Your task to perform on an android device: delete location history Image 0: 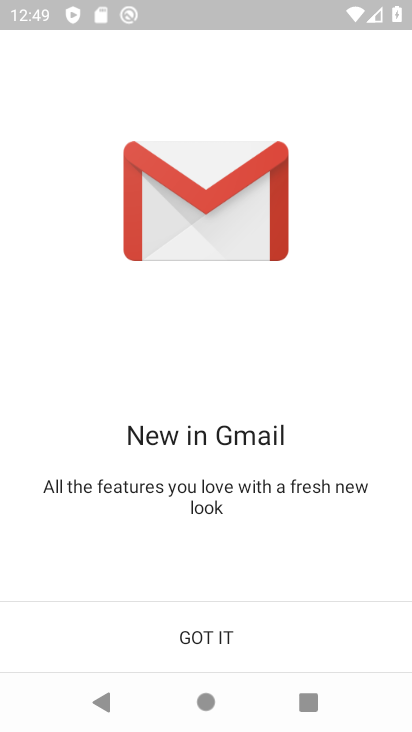
Step 0: press home button
Your task to perform on an android device: delete location history Image 1: 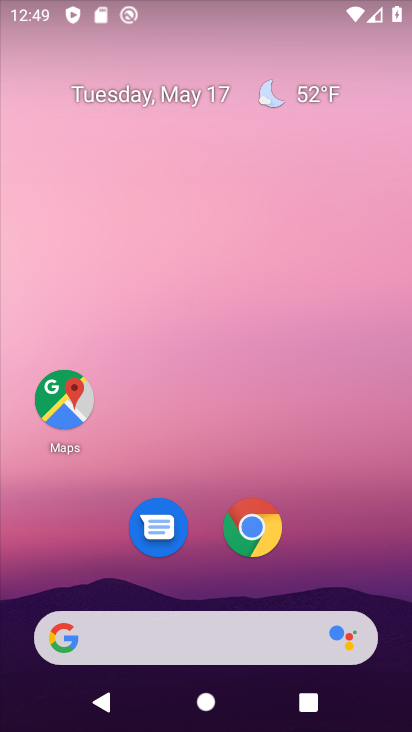
Step 1: drag from (111, 604) to (208, 204)
Your task to perform on an android device: delete location history Image 2: 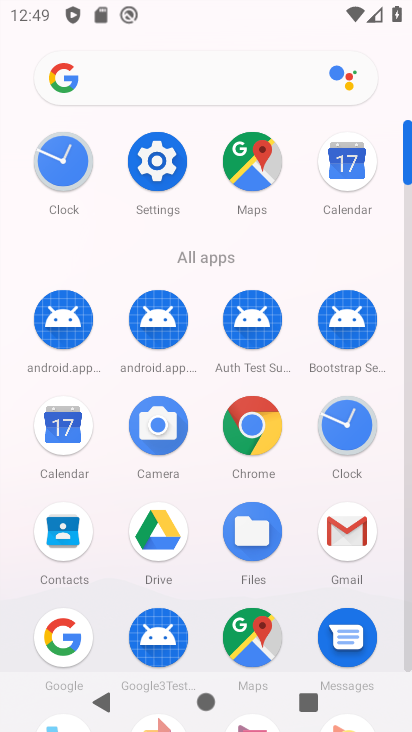
Step 2: drag from (164, 634) to (211, 426)
Your task to perform on an android device: delete location history Image 3: 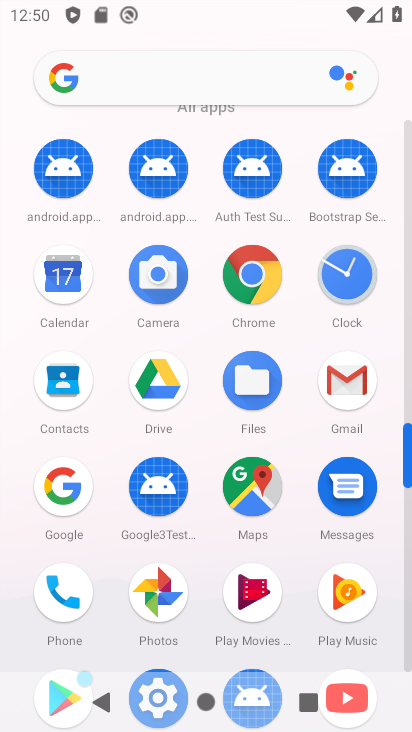
Step 3: drag from (176, 657) to (209, 465)
Your task to perform on an android device: delete location history Image 4: 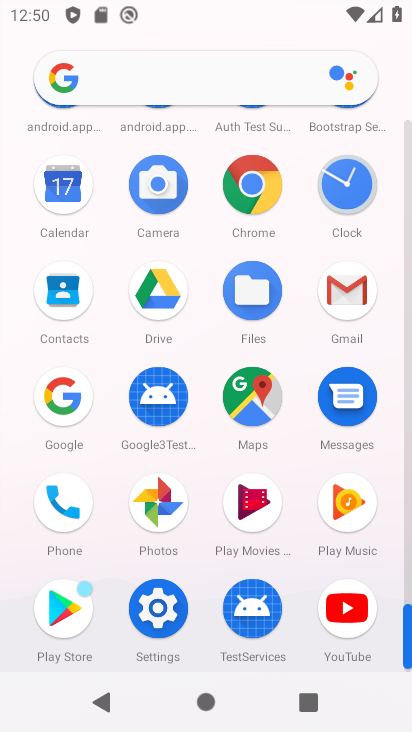
Step 4: click (156, 619)
Your task to perform on an android device: delete location history Image 5: 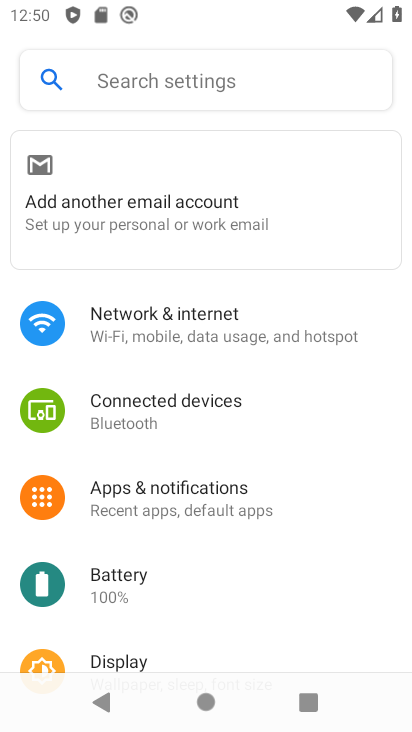
Step 5: drag from (158, 607) to (242, 154)
Your task to perform on an android device: delete location history Image 6: 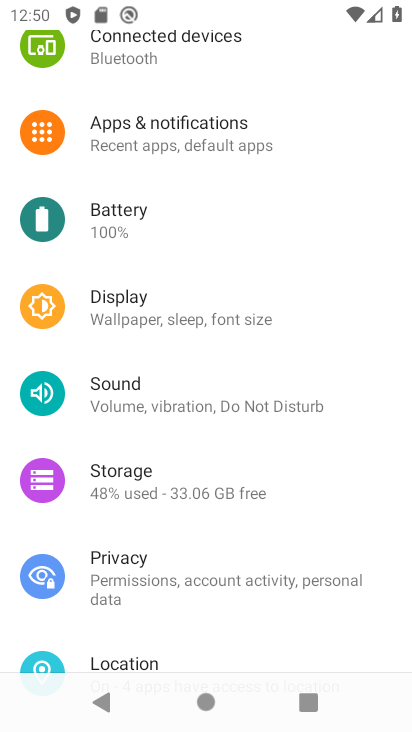
Step 6: drag from (165, 591) to (198, 254)
Your task to perform on an android device: delete location history Image 7: 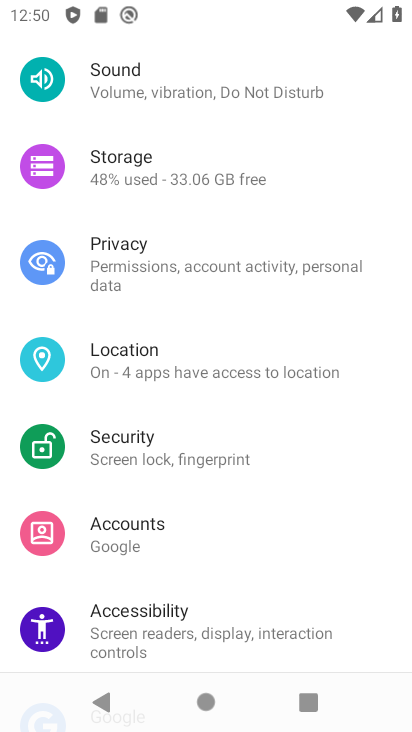
Step 7: click (168, 356)
Your task to perform on an android device: delete location history Image 8: 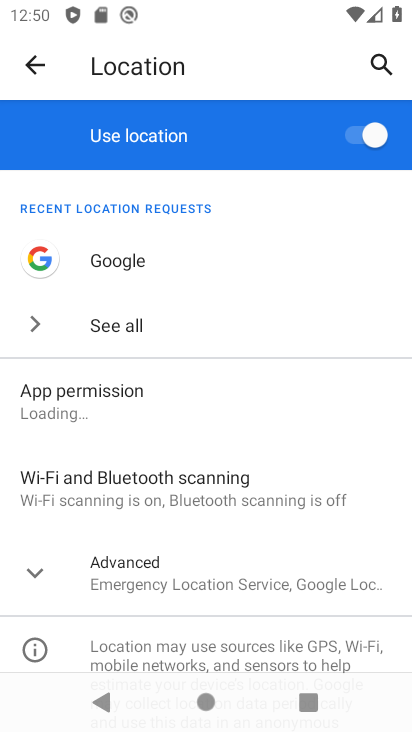
Step 8: click (254, 583)
Your task to perform on an android device: delete location history Image 9: 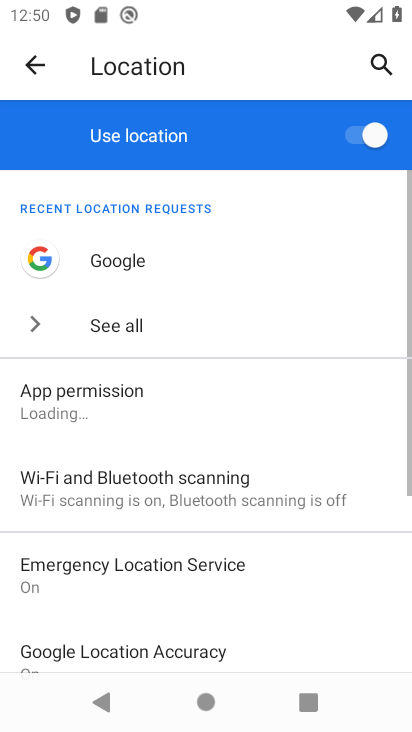
Step 9: drag from (187, 599) to (233, 306)
Your task to perform on an android device: delete location history Image 10: 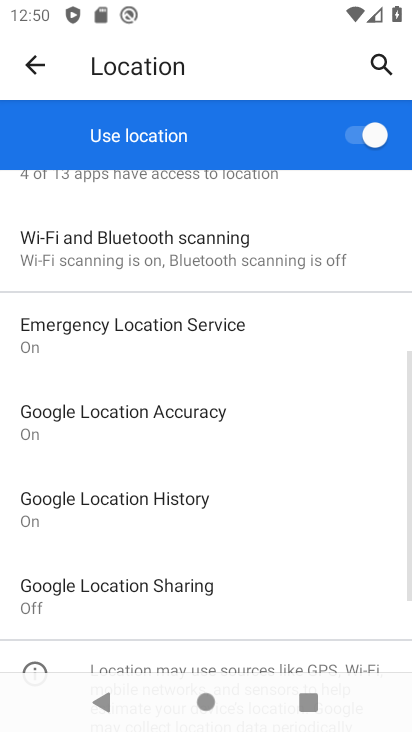
Step 10: click (178, 504)
Your task to perform on an android device: delete location history Image 11: 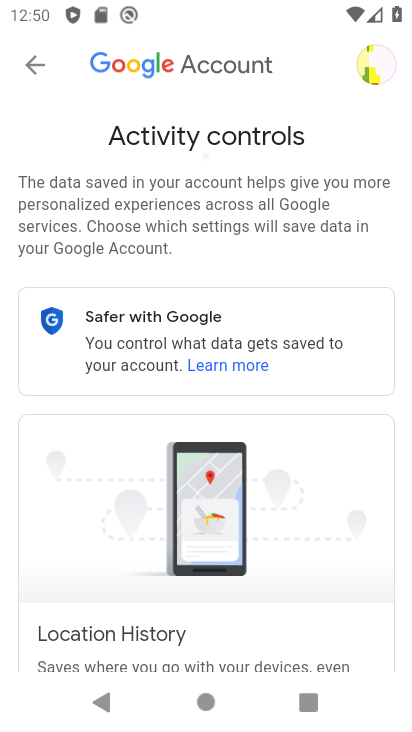
Step 11: drag from (210, 624) to (380, 124)
Your task to perform on an android device: delete location history Image 12: 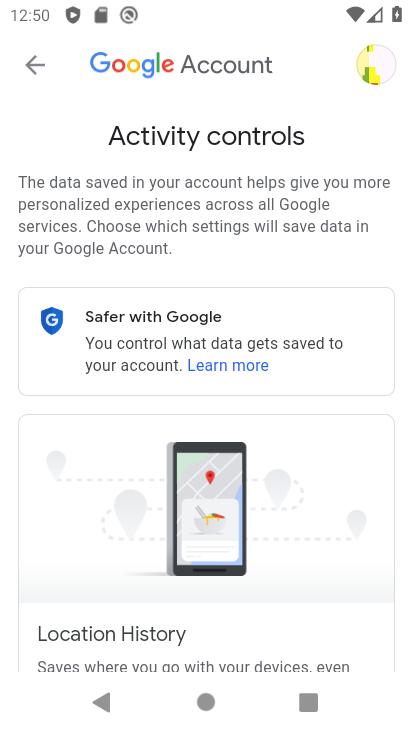
Step 12: drag from (280, 573) to (361, 112)
Your task to perform on an android device: delete location history Image 13: 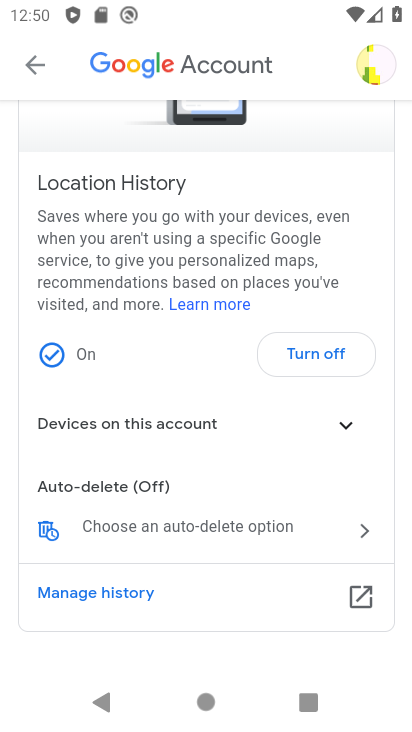
Step 13: click (145, 607)
Your task to perform on an android device: delete location history Image 14: 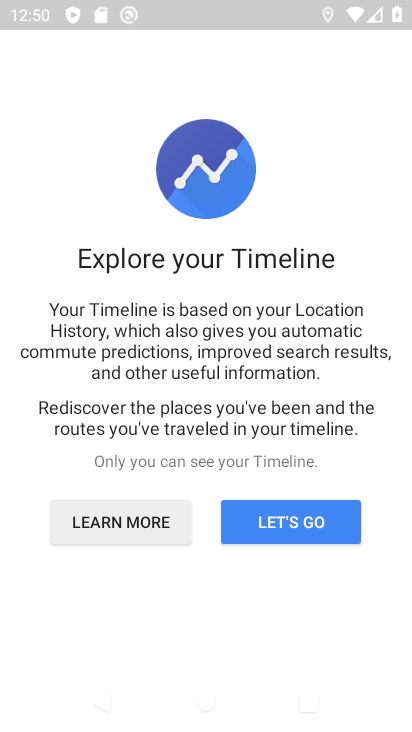
Step 14: click (301, 539)
Your task to perform on an android device: delete location history Image 15: 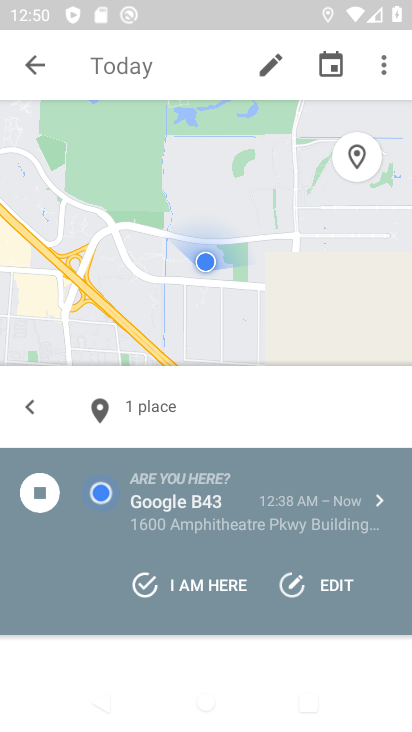
Step 15: click (370, 63)
Your task to perform on an android device: delete location history Image 16: 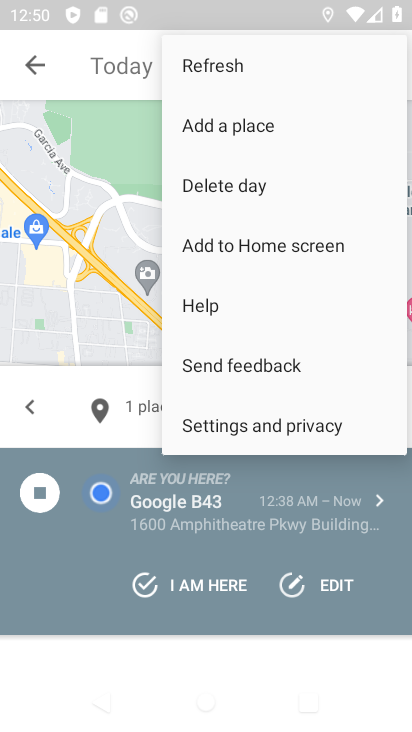
Step 16: click (259, 200)
Your task to perform on an android device: delete location history Image 17: 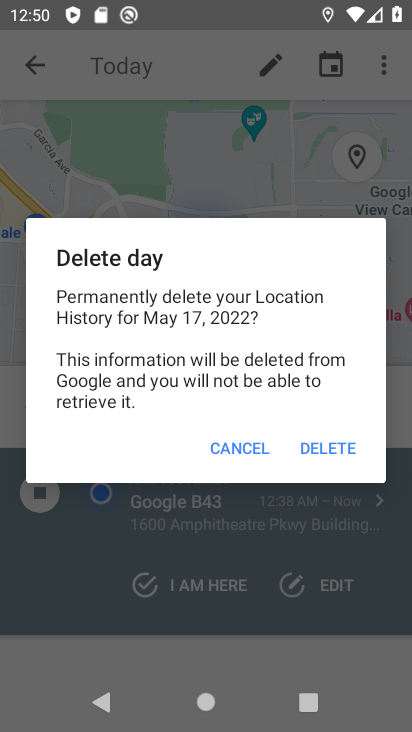
Step 17: click (350, 453)
Your task to perform on an android device: delete location history Image 18: 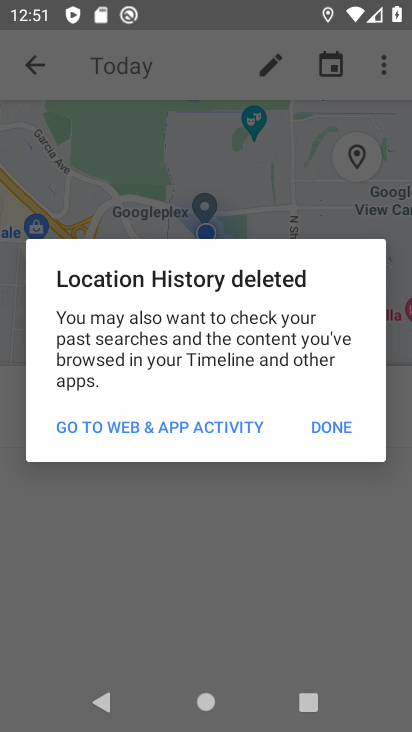
Step 18: click (350, 436)
Your task to perform on an android device: delete location history Image 19: 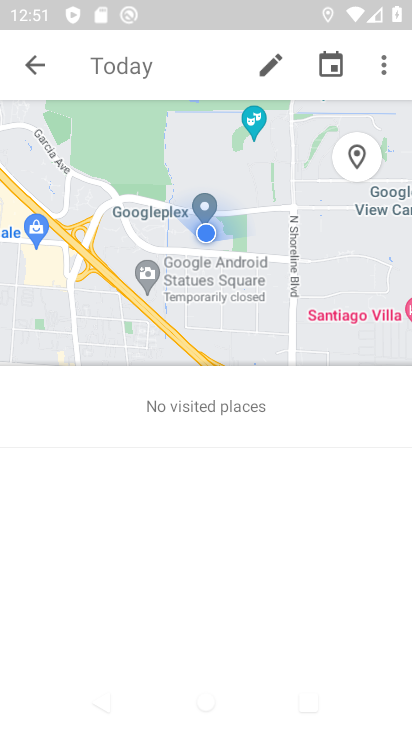
Step 19: task complete